Your task to perform on an android device: Search for sony triple a on walmart.com, select the first entry, and add it to the cart. Image 0: 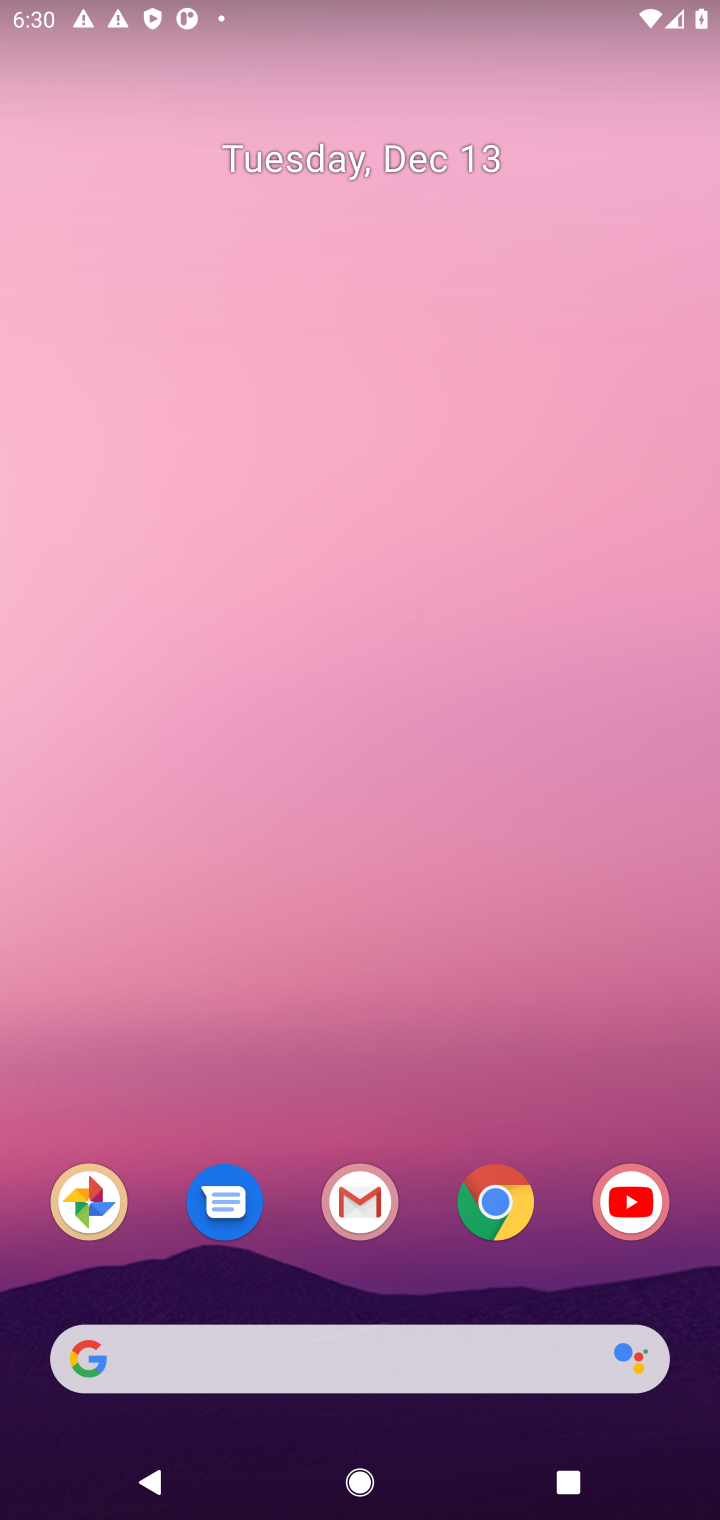
Step 0: click (495, 1223)
Your task to perform on an android device: Search for sony triple a on walmart.com, select the first entry, and add it to the cart. Image 1: 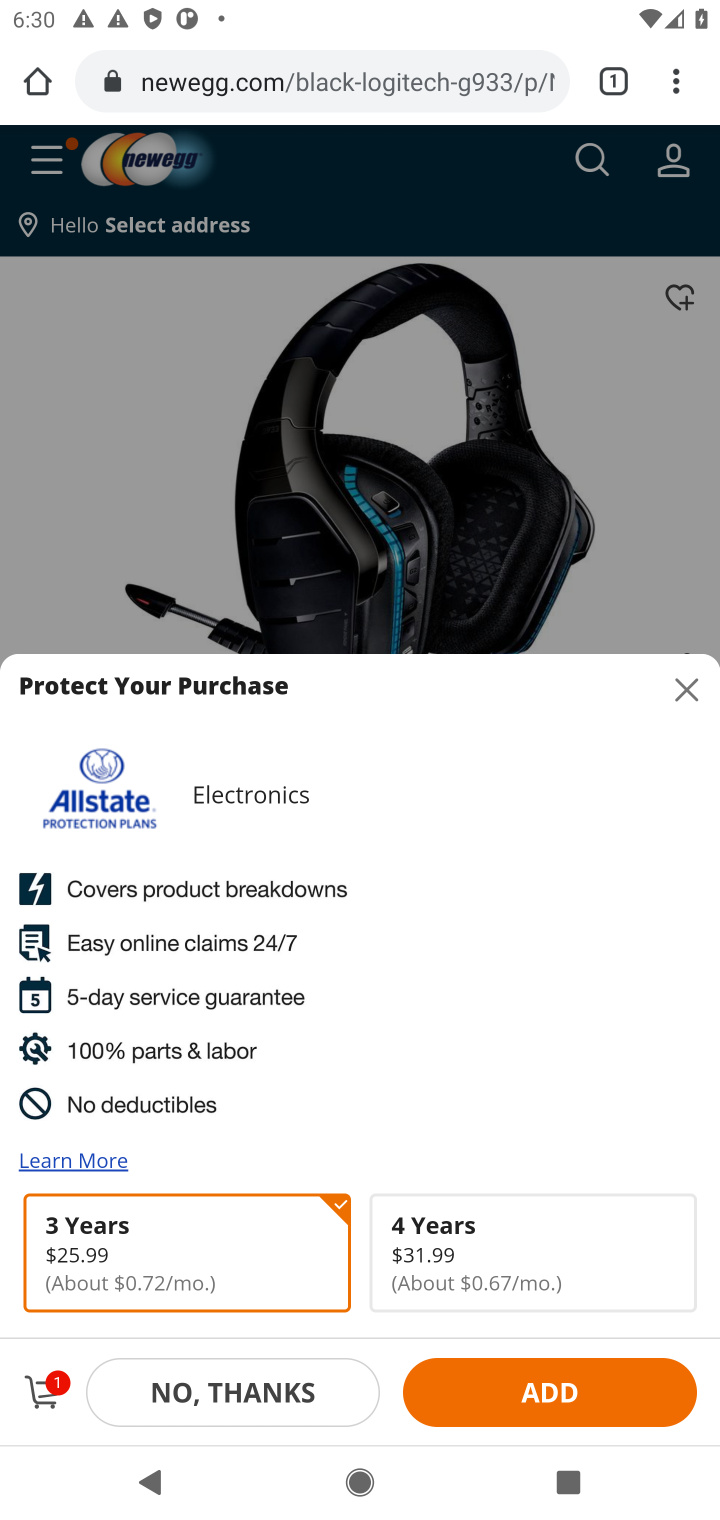
Step 1: click (267, 80)
Your task to perform on an android device: Search for sony triple a on walmart.com, select the first entry, and add it to the cart. Image 2: 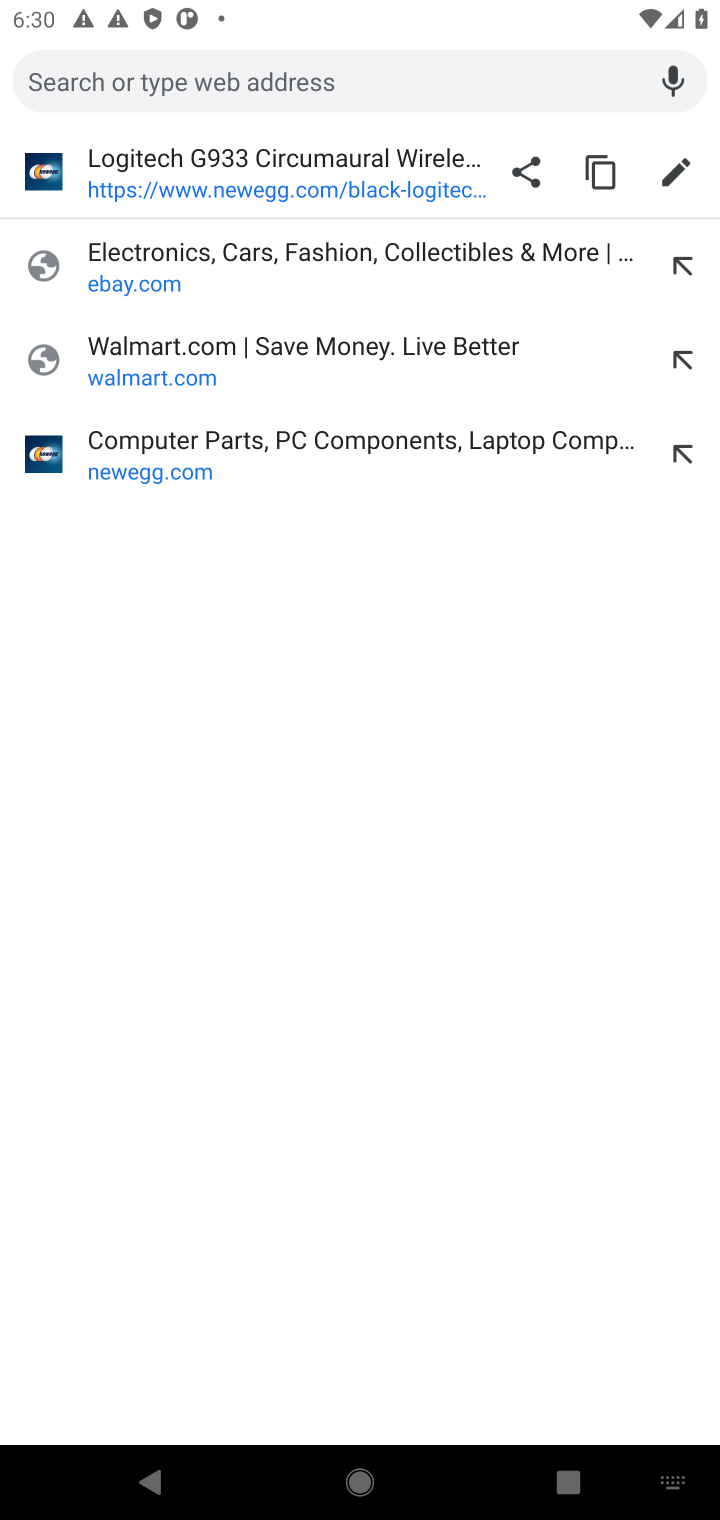
Step 2: click (152, 351)
Your task to perform on an android device: Search for sony triple a on walmart.com, select the first entry, and add it to the cart. Image 3: 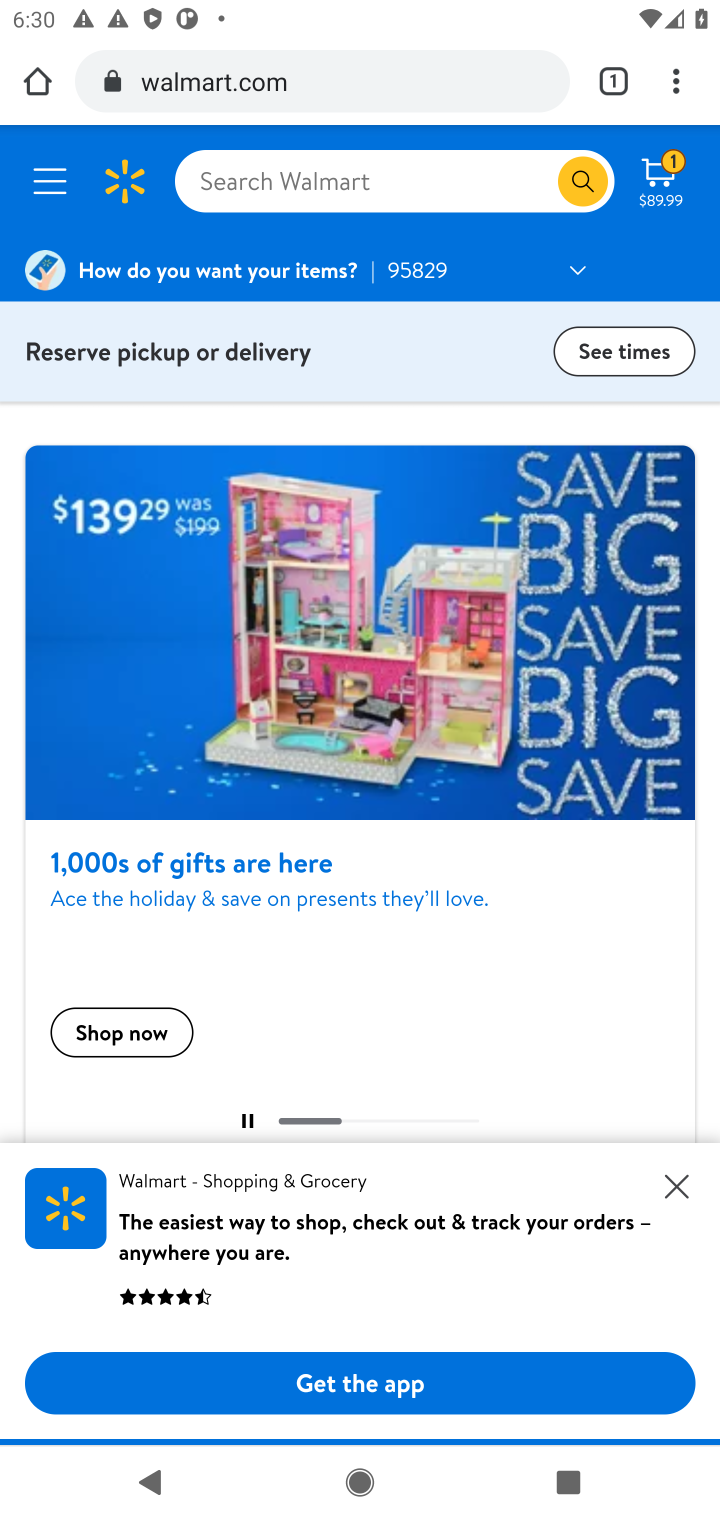
Step 3: click (234, 187)
Your task to perform on an android device: Search for sony triple a on walmart.com, select the first entry, and add it to the cart. Image 4: 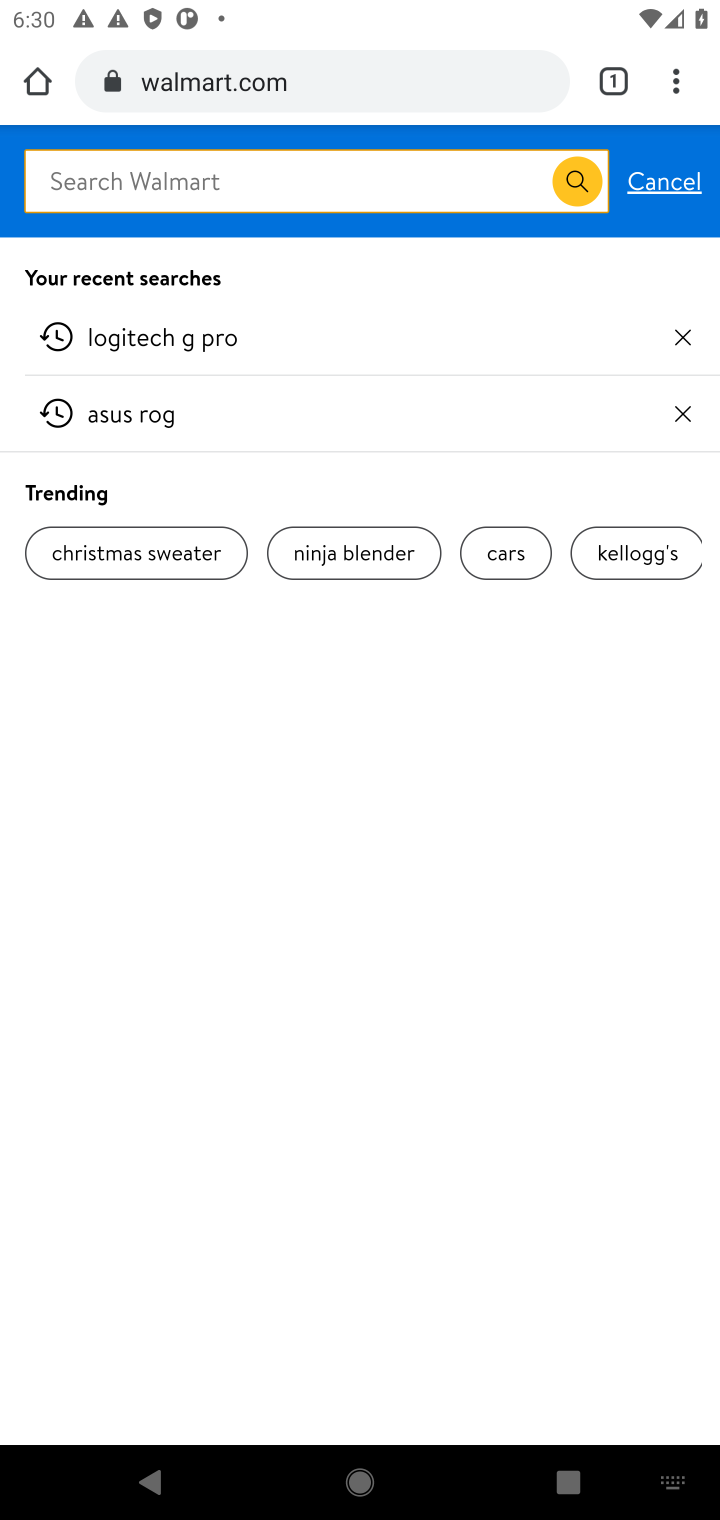
Step 4: type "sony triple a"
Your task to perform on an android device: Search for sony triple a on walmart.com, select the first entry, and add it to the cart. Image 5: 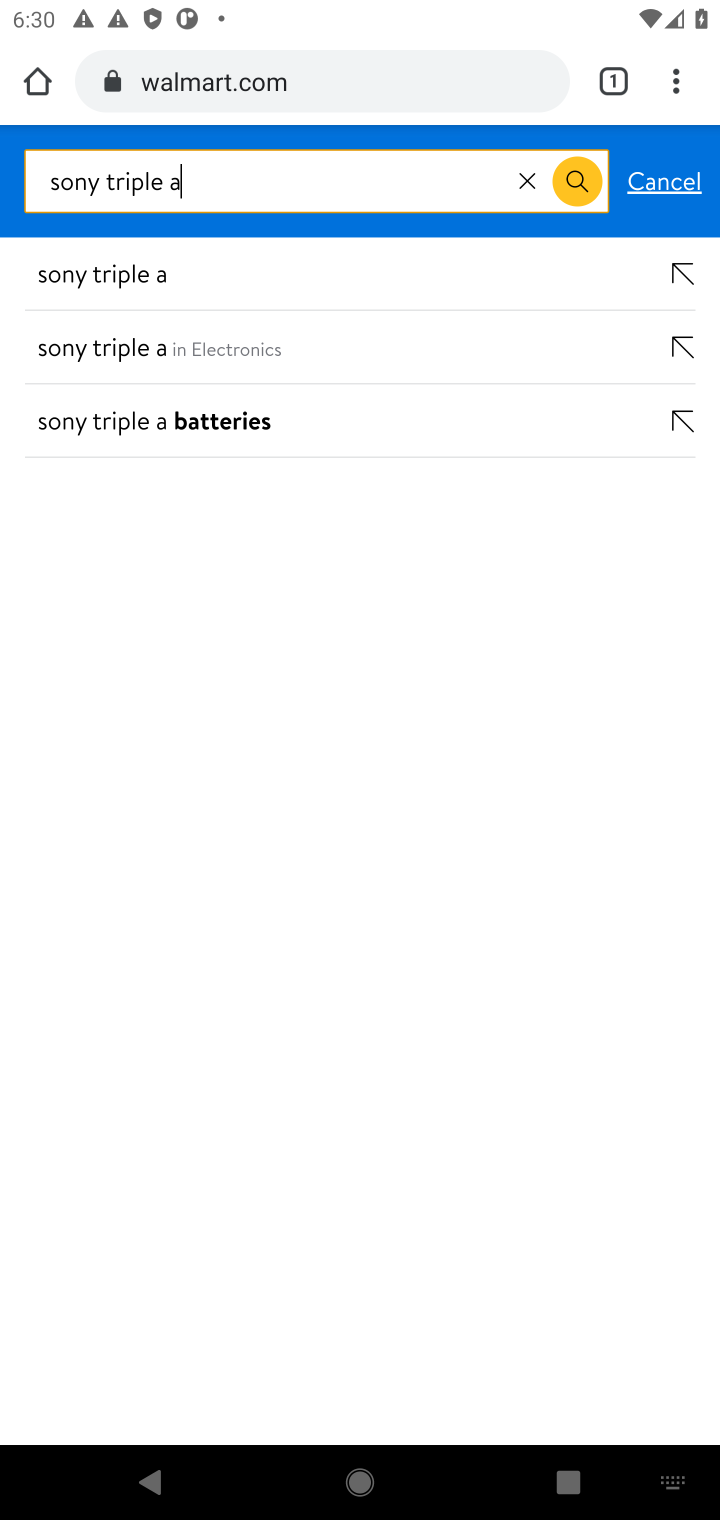
Step 5: click (126, 283)
Your task to perform on an android device: Search for sony triple a on walmart.com, select the first entry, and add it to the cart. Image 6: 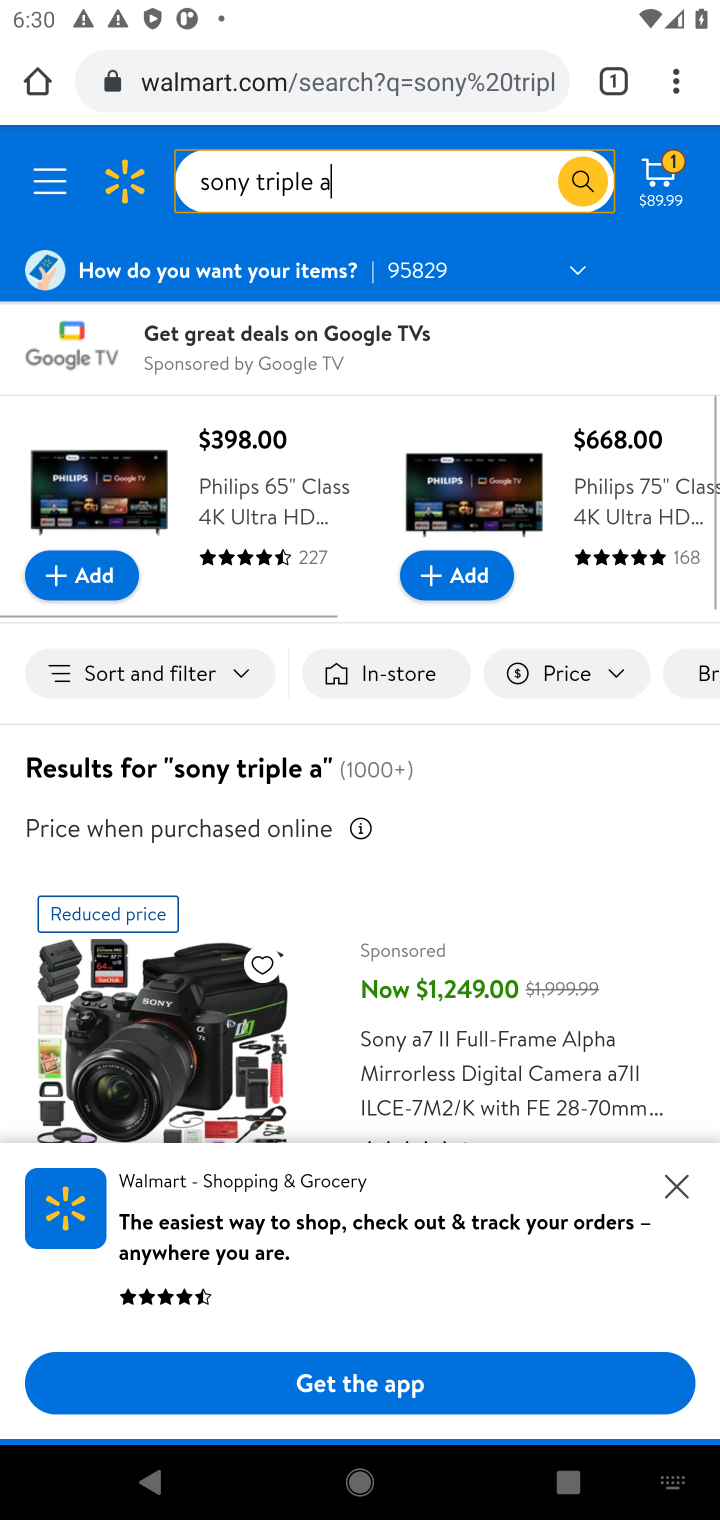
Step 6: task complete